Your task to perform on an android device: Is it going to rain this weekend? Image 0: 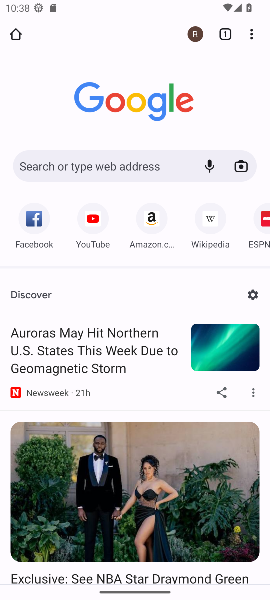
Step 0: press home button
Your task to perform on an android device: Is it going to rain this weekend? Image 1: 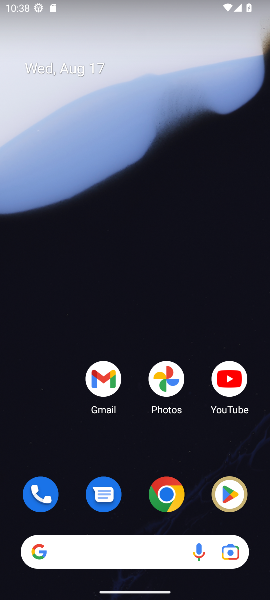
Step 1: drag from (121, 502) to (206, 28)
Your task to perform on an android device: Is it going to rain this weekend? Image 2: 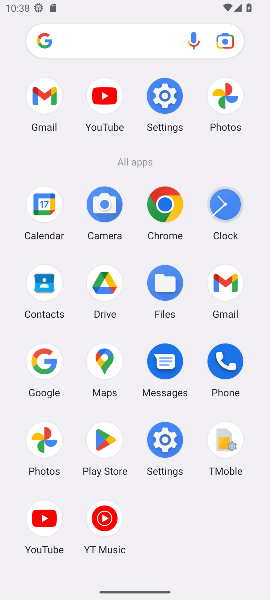
Step 2: click (44, 375)
Your task to perform on an android device: Is it going to rain this weekend? Image 3: 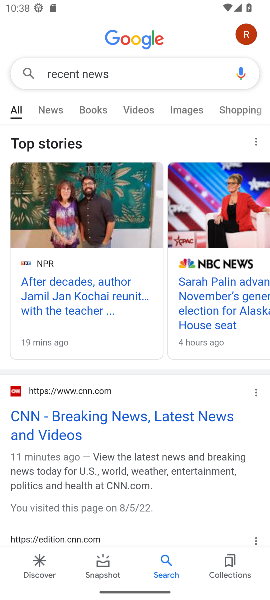
Step 3: click (122, 70)
Your task to perform on an android device: Is it going to rain this weekend? Image 4: 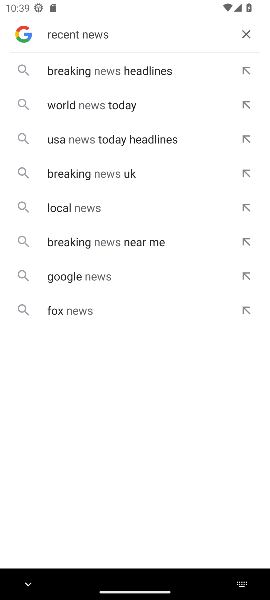
Step 4: click (250, 29)
Your task to perform on an android device: Is it going to rain this weekend? Image 5: 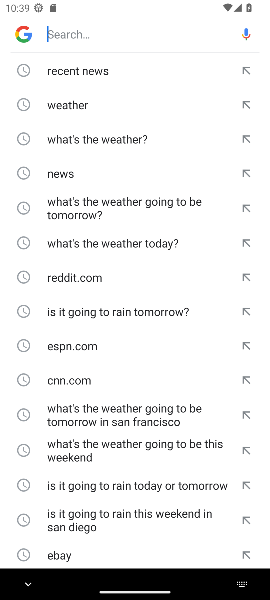
Step 5: type "weather"
Your task to perform on an android device: Is it going to rain this weekend? Image 6: 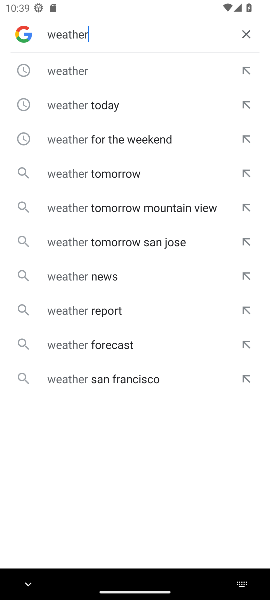
Step 6: click (87, 74)
Your task to perform on an android device: Is it going to rain this weekend? Image 7: 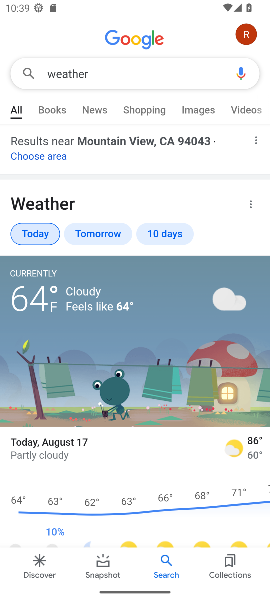
Step 7: drag from (149, 382) to (145, 228)
Your task to perform on an android device: Is it going to rain this weekend? Image 8: 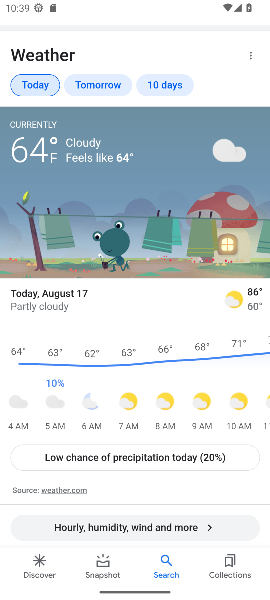
Step 8: click (164, 86)
Your task to perform on an android device: Is it going to rain this weekend? Image 9: 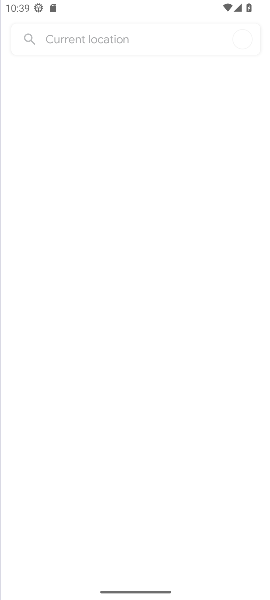
Step 9: click (163, 86)
Your task to perform on an android device: Is it going to rain this weekend? Image 10: 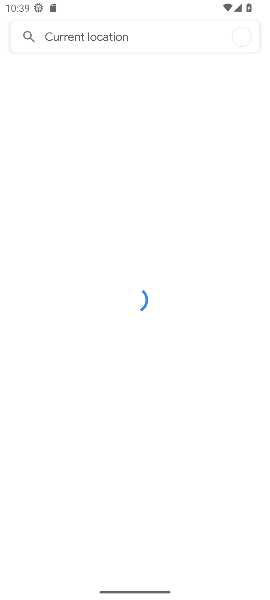
Step 10: click (163, 86)
Your task to perform on an android device: Is it going to rain this weekend? Image 11: 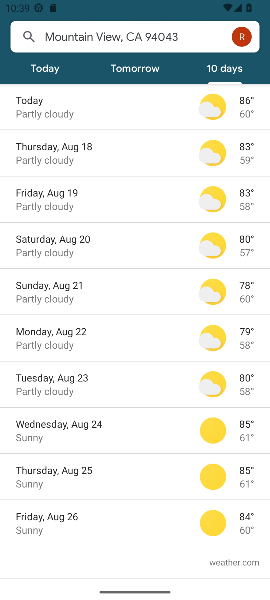
Step 11: task complete